Your task to perform on an android device: Search for seafood restaurants on Google Maps Image 0: 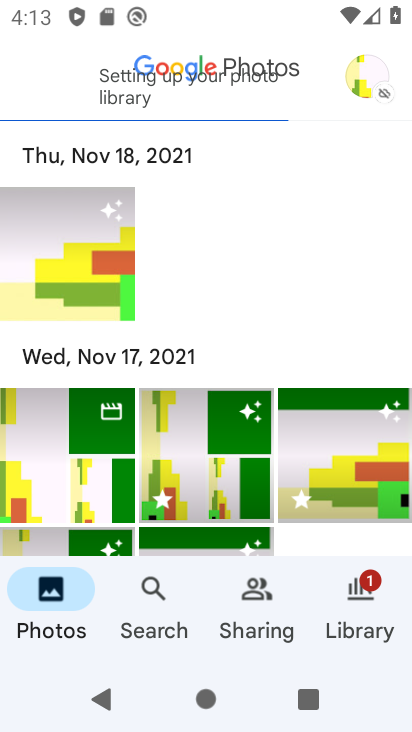
Step 0: press home button
Your task to perform on an android device: Search for seafood restaurants on Google Maps Image 1: 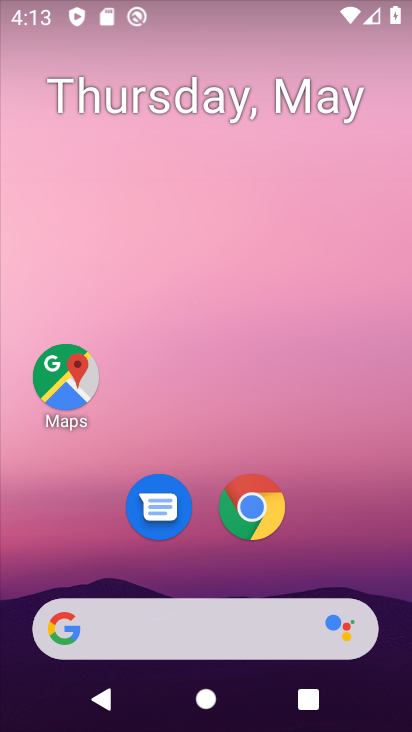
Step 1: drag from (225, 571) to (190, 2)
Your task to perform on an android device: Search for seafood restaurants on Google Maps Image 2: 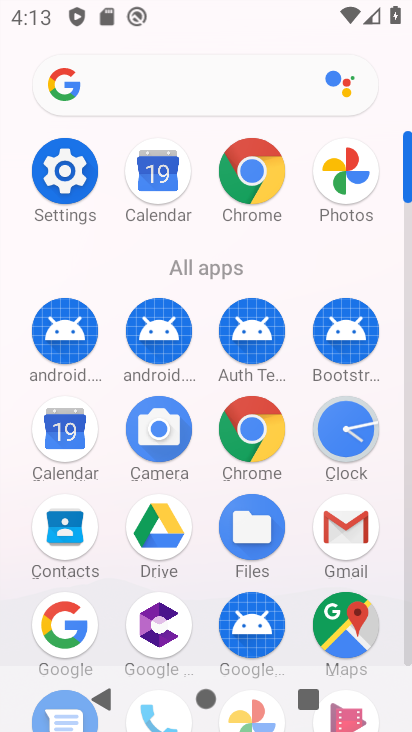
Step 2: click (332, 638)
Your task to perform on an android device: Search for seafood restaurants on Google Maps Image 3: 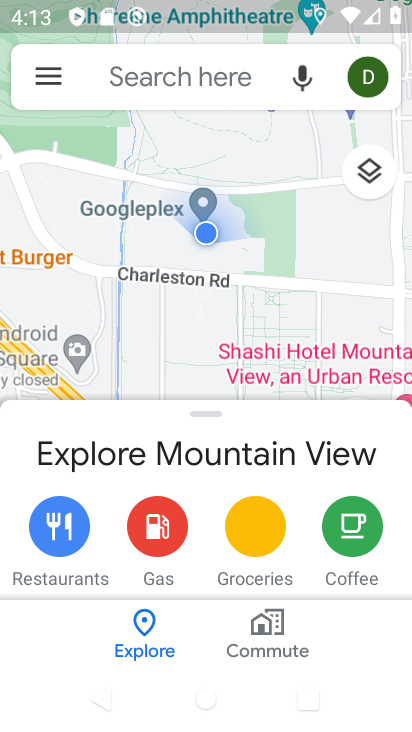
Step 3: click (182, 80)
Your task to perform on an android device: Search for seafood restaurants on Google Maps Image 4: 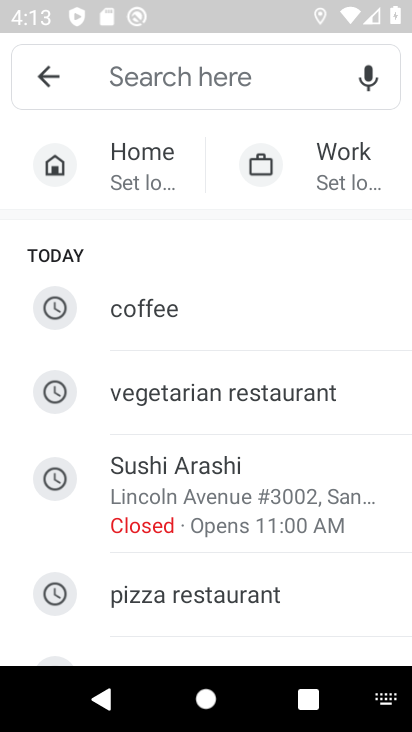
Step 4: type "seafood restaurants"
Your task to perform on an android device: Search for seafood restaurants on Google Maps Image 5: 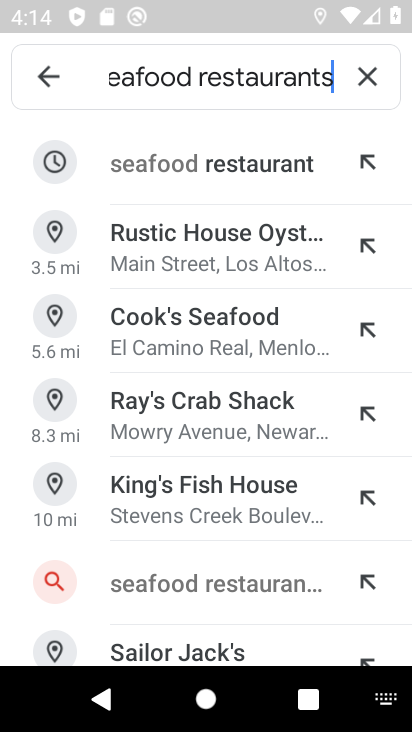
Step 5: click (166, 174)
Your task to perform on an android device: Search for seafood restaurants on Google Maps Image 6: 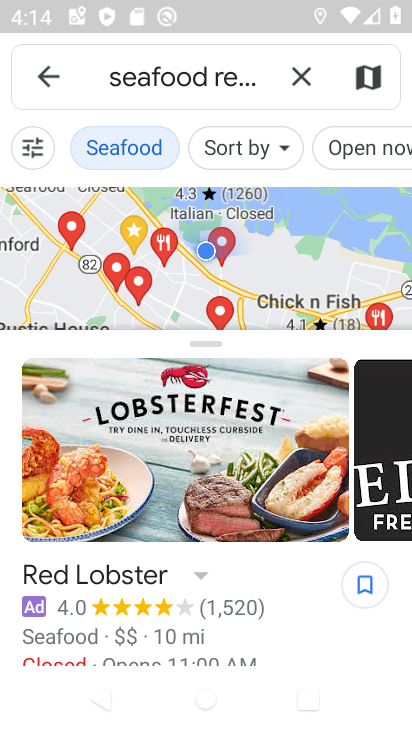
Step 6: task complete